Your task to perform on an android device: Is it going to rain this weekend? Image 0: 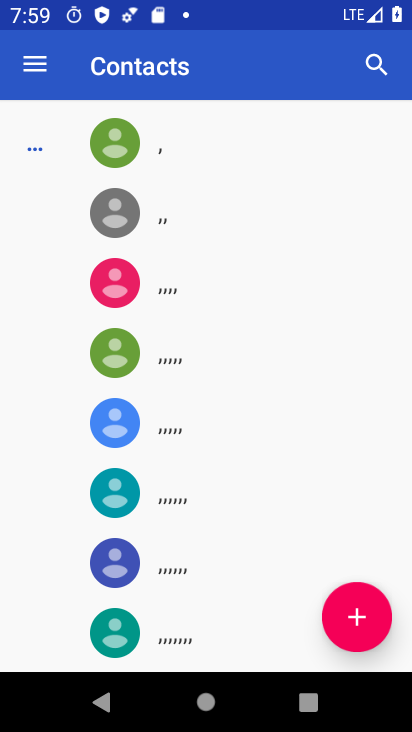
Step 0: press home button
Your task to perform on an android device: Is it going to rain this weekend? Image 1: 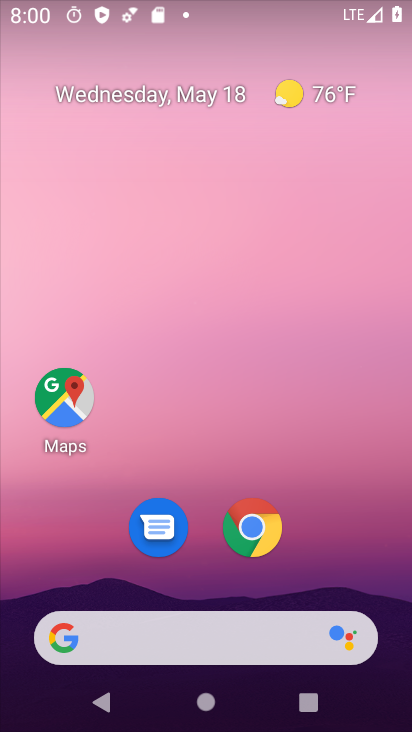
Step 1: click (330, 96)
Your task to perform on an android device: Is it going to rain this weekend? Image 2: 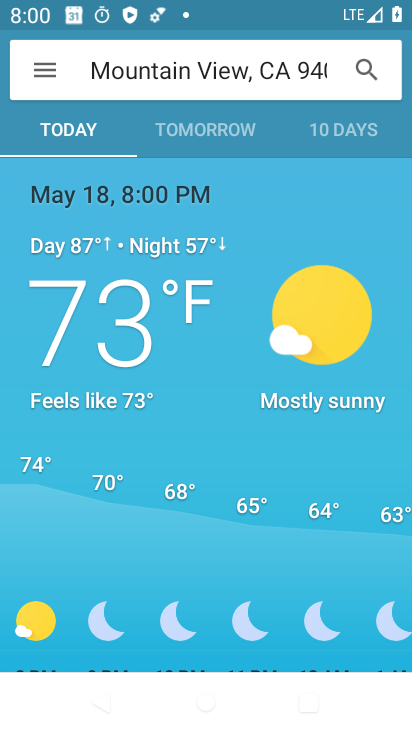
Step 2: click (60, 163)
Your task to perform on an android device: Is it going to rain this weekend? Image 3: 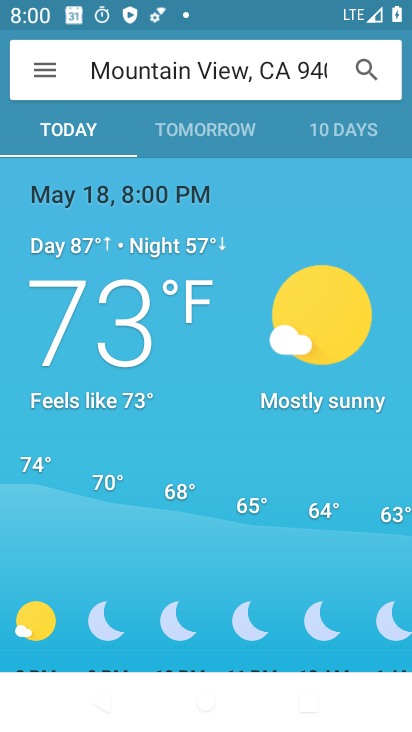
Step 3: click (171, 140)
Your task to perform on an android device: Is it going to rain this weekend? Image 4: 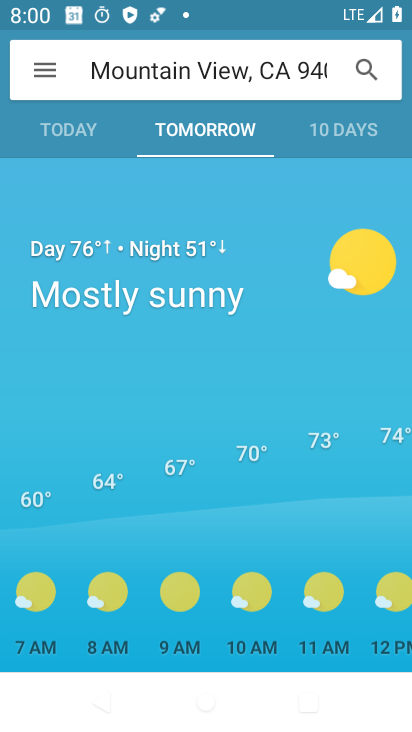
Step 4: click (370, 123)
Your task to perform on an android device: Is it going to rain this weekend? Image 5: 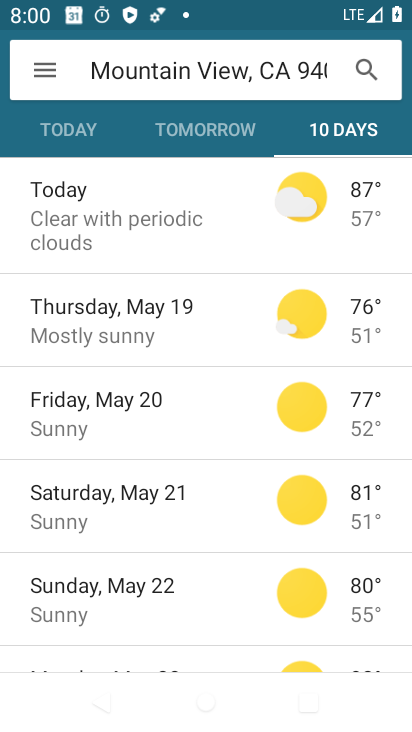
Step 5: task complete